Your task to perform on an android device: turn off location Image 0: 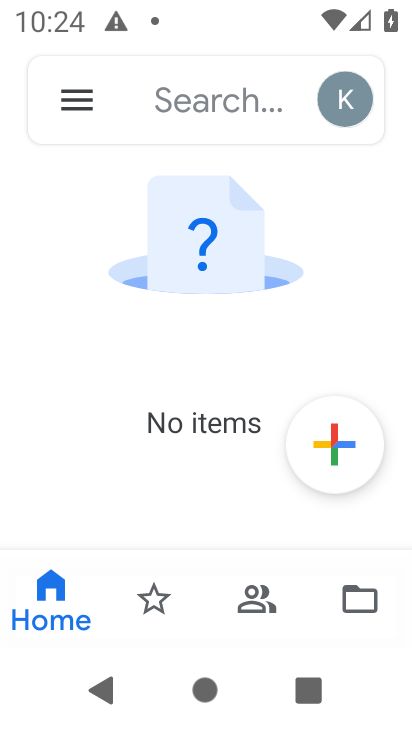
Step 0: press home button
Your task to perform on an android device: turn off location Image 1: 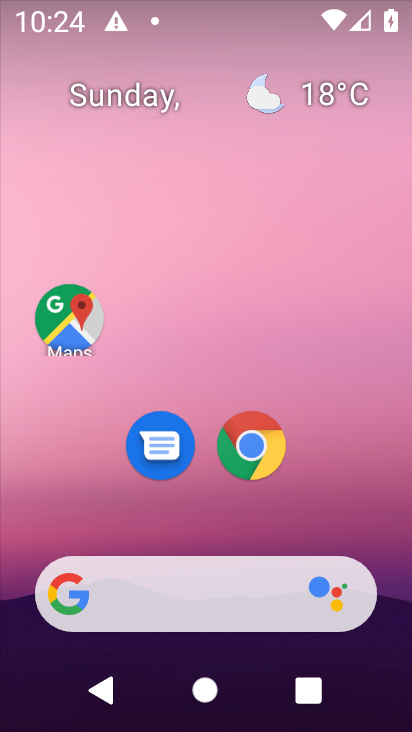
Step 1: drag from (200, 577) to (241, 14)
Your task to perform on an android device: turn off location Image 2: 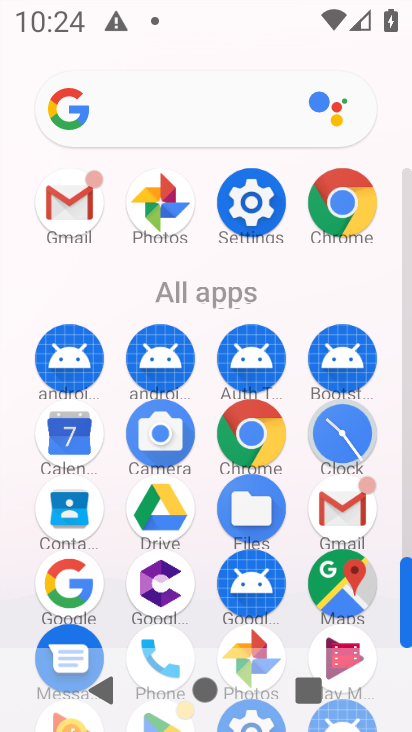
Step 2: click (256, 182)
Your task to perform on an android device: turn off location Image 3: 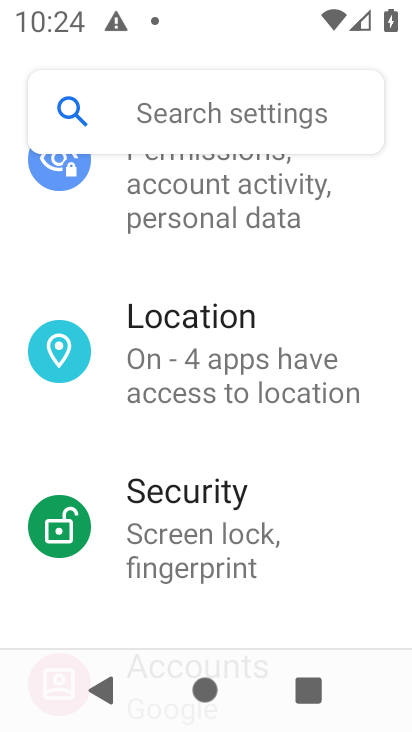
Step 3: click (220, 366)
Your task to perform on an android device: turn off location Image 4: 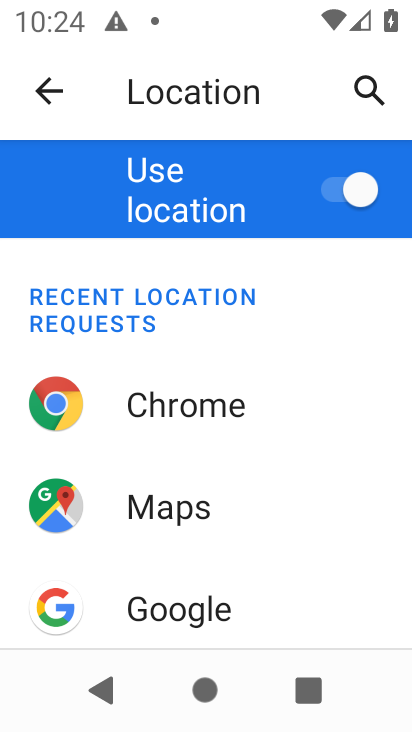
Step 4: click (336, 201)
Your task to perform on an android device: turn off location Image 5: 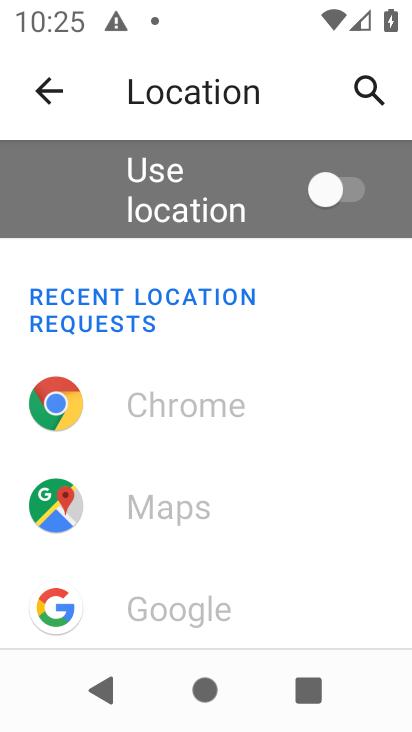
Step 5: task complete